Your task to perform on an android device: turn off data saver in the chrome app Image 0: 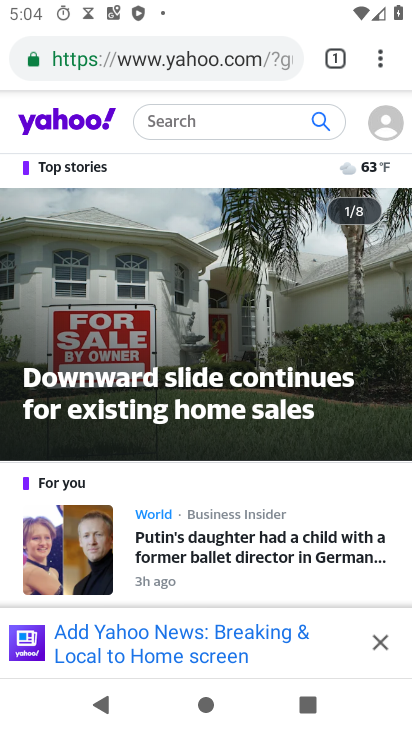
Step 0: press back button
Your task to perform on an android device: turn off data saver in the chrome app Image 1: 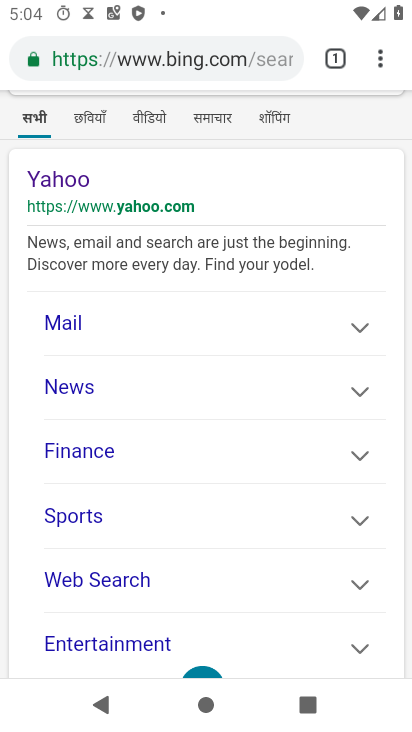
Step 1: press back button
Your task to perform on an android device: turn off data saver in the chrome app Image 2: 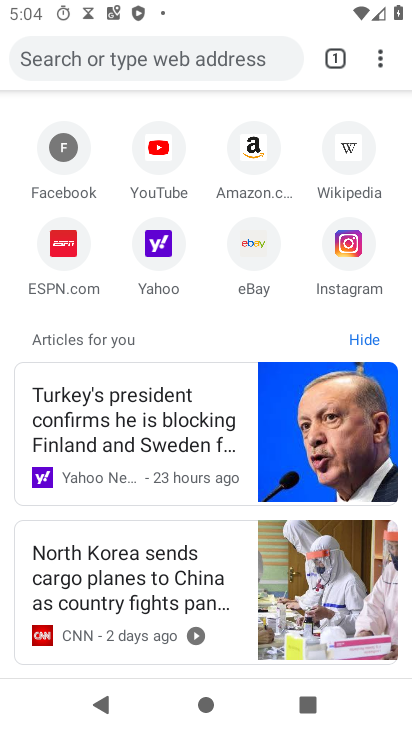
Step 2: press back button
Your task to perform on an android device: turn off data saver in the chrome app Image 3: 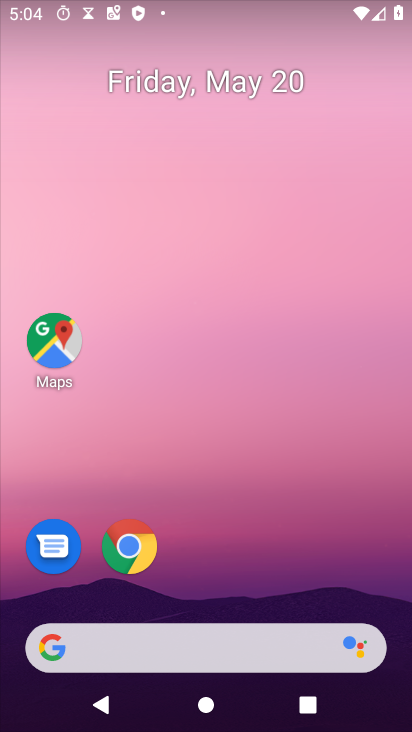
Step 3: click (127, 545)
Your task to perform on an android device: turn off data saver in the chrome app Image 4: 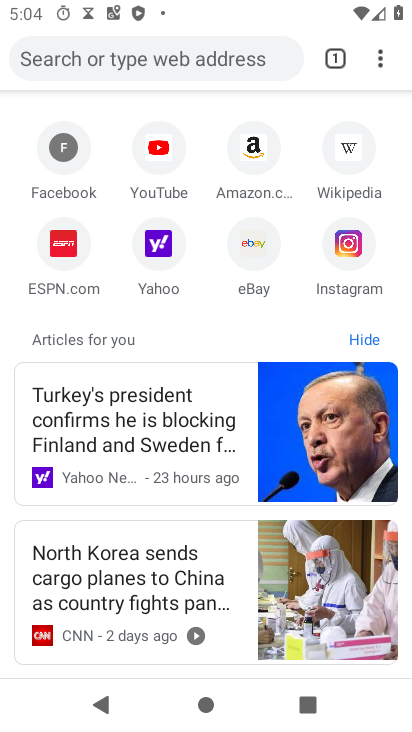
Step 4: click (378, 59)
Your task to perform on an android device: turn off data saver in the chrome app Image 5: 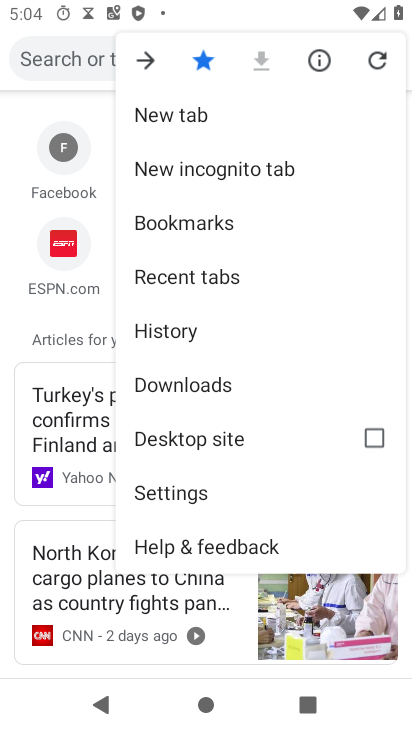
Step 5: click (187, 494)
Your task to perform on an android device: turn off data saver in the chrome app Image 6: 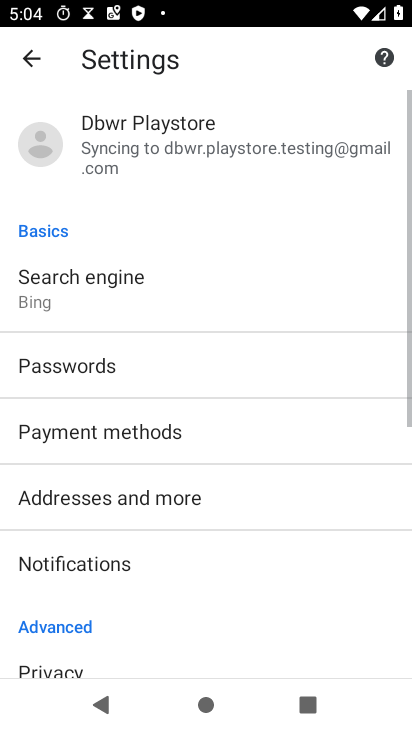
Step 6: drag from (146, 558) to (244, 443)
Your task to perform on an android device: turn off data saver in the chrome app Image 7: 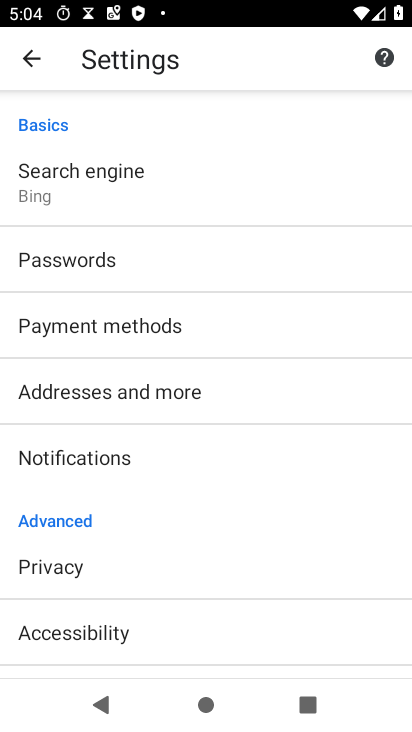
Step 7: drag from (151, 603) to (243, 495)
Your task to perform on an android device: turn off data saver in the chrome app Image 8: 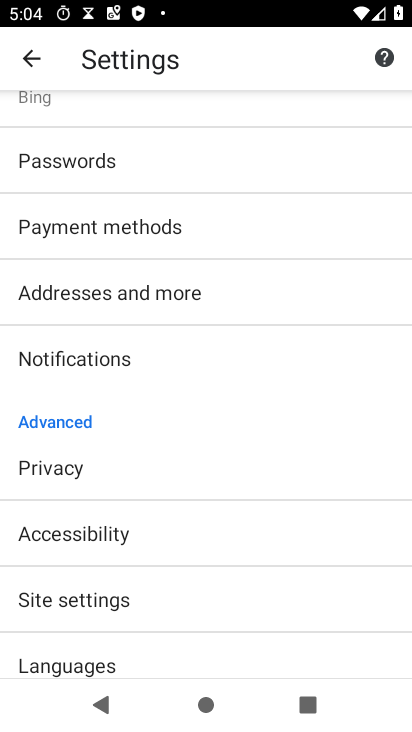
Step 8: drag from (173, 634) to (277, 500)
Your task to perform on an android device: turn off data saver in the chrome app Image 9: 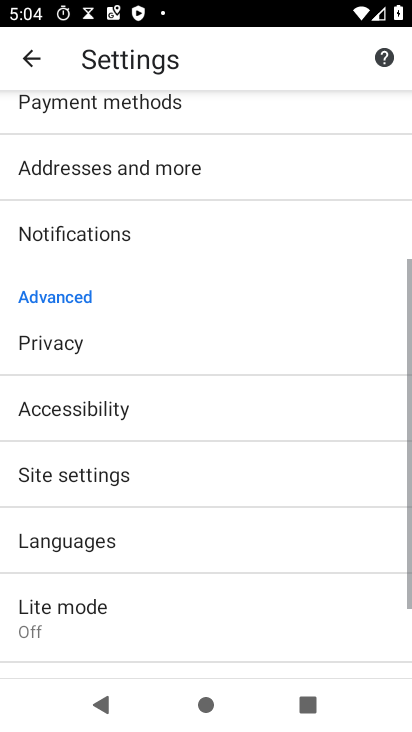
Step 9: click (83, 610)
Your task to perform on an android device: turn off data saver in the chrome app Image 10: 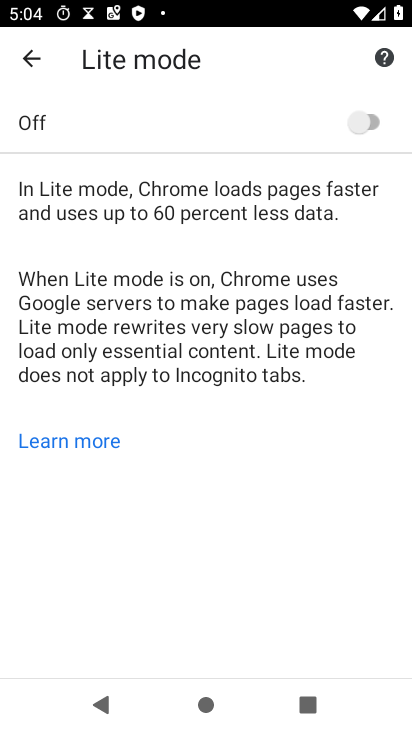
Step 10: task complete